Your task to perform on an android device: Go to network settings Image 0: 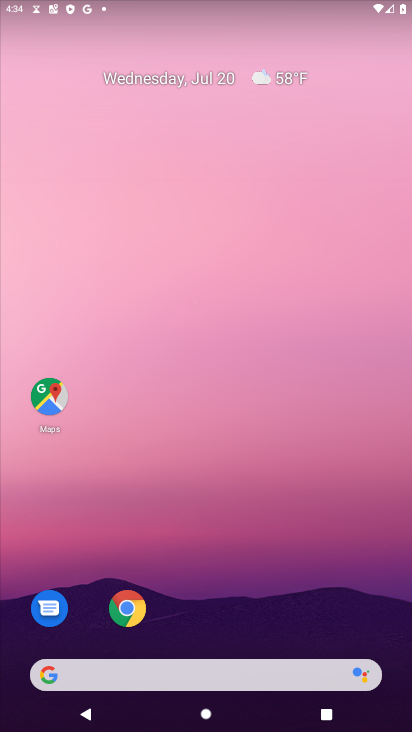
Step 0: drag from (202, 637) to (203, 110)
Your task to perform on an android device: Go to network settings Image 1: 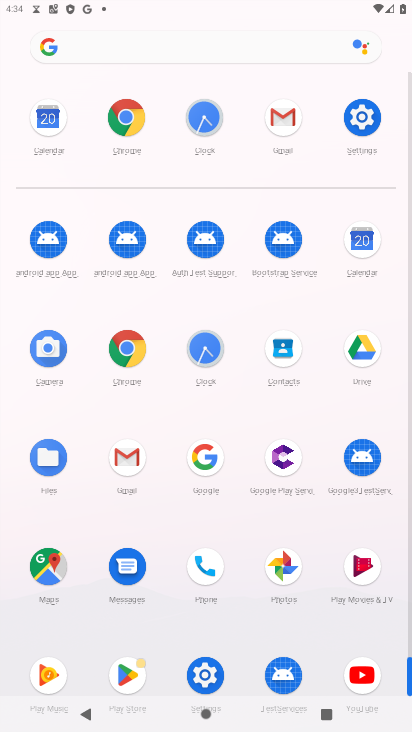
Step 1: click (206, 665)
Your task to perform on an android device: Go to network settings Image 2: 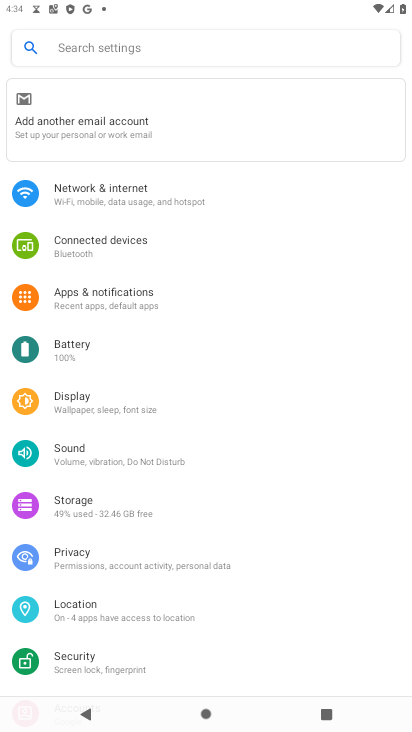
Step 2: click (112, 196)
Your task to perform on an android device: Go to network settings Image 3: 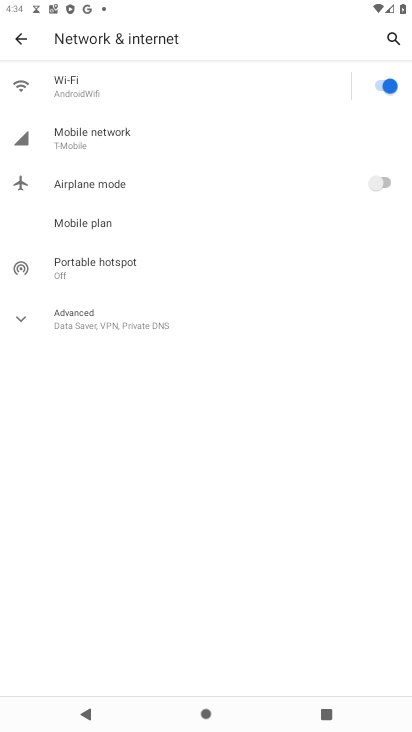
Step 3: click (176, 147)
Your task to perform on an android device: Go to network settings Image 4: 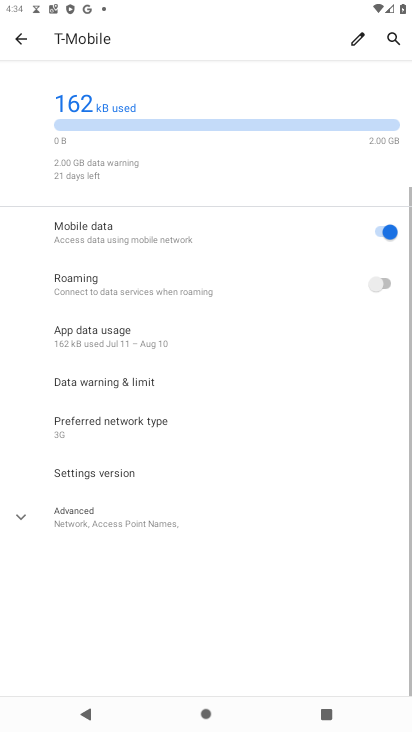
Step 4: task complete